Your task to perform on an android device: Show me recent news Image 0: 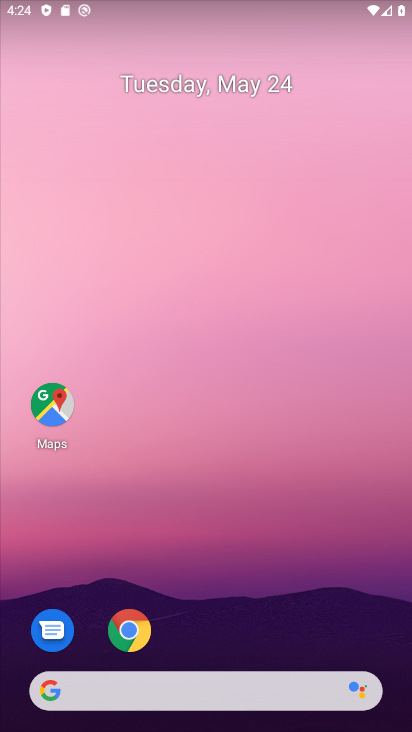
Step 0: drag from (200, 620) to (210, 47)
Your task to perform on an android device: Show me recent news Image 1: 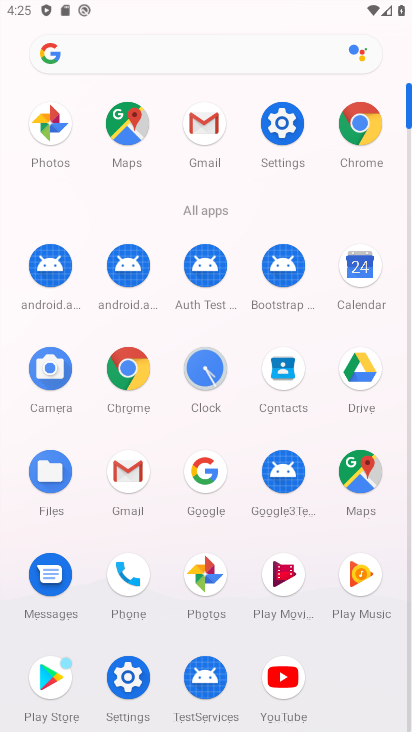
Step 1: click (121, 361)
Your task to perform on an android device: Show me recent news Image 2: 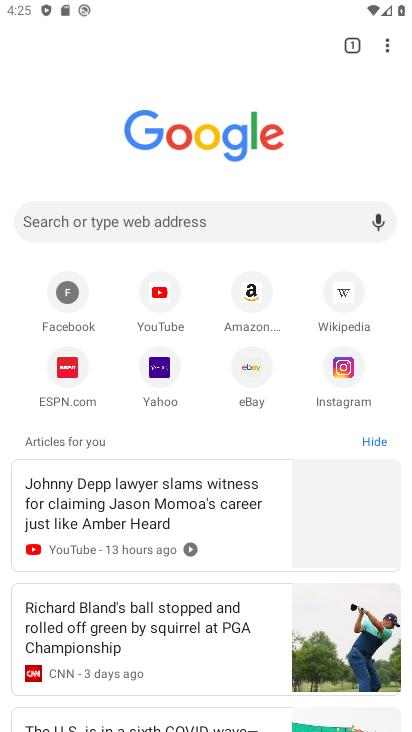
Step 2: task complete